Your task to perform on an android device: turn on notifications settings in the gmail app Image 0: 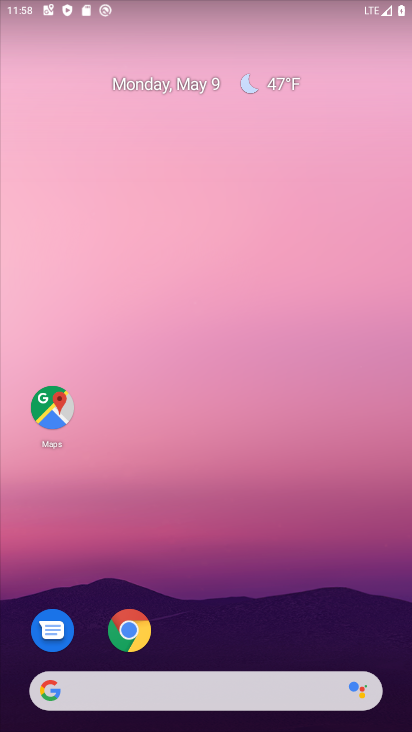
Step 0: press home button
Your task to perform on an android device: turn on notifications settings in the gmail app Image 1: 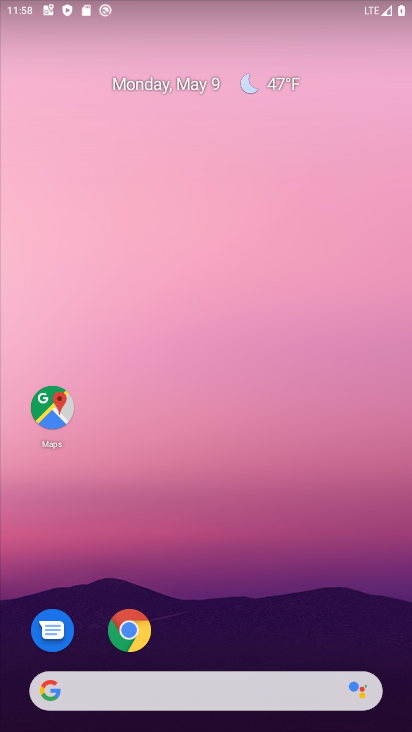
Step 1: drag from (179, 695) to (300, 64)
Your task to perform on an android device: turn on notifications settings in the gmail app Image 2: 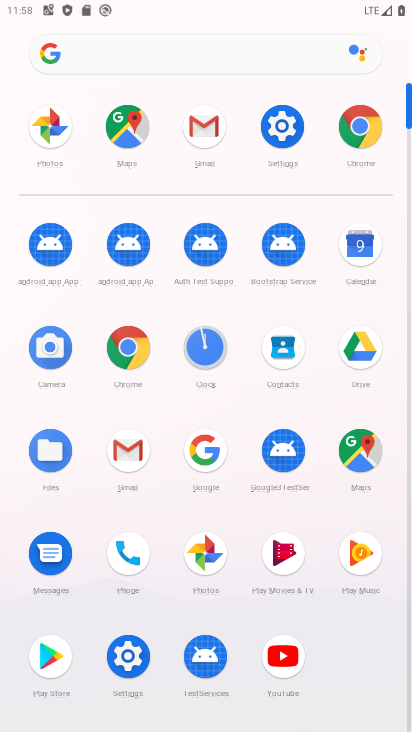
Step 2: click (201, 138)
Your task to perform on an android device: turn on notifications settings in the gmail app Image 3: 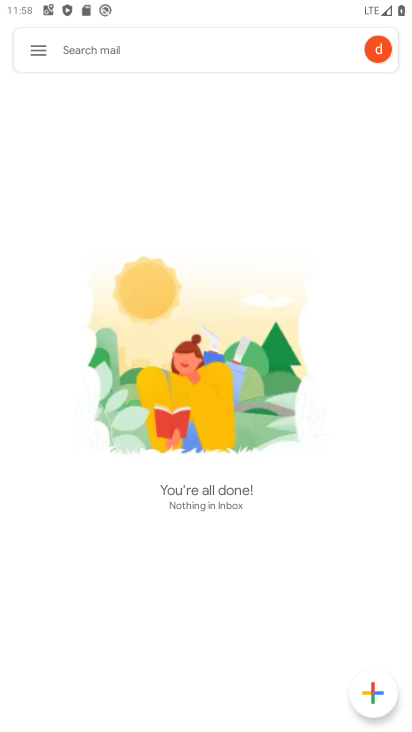
Step 3: click (34, 50)
Your task to perform on an android device: turn on notifications settings in the gmail app Image 4: 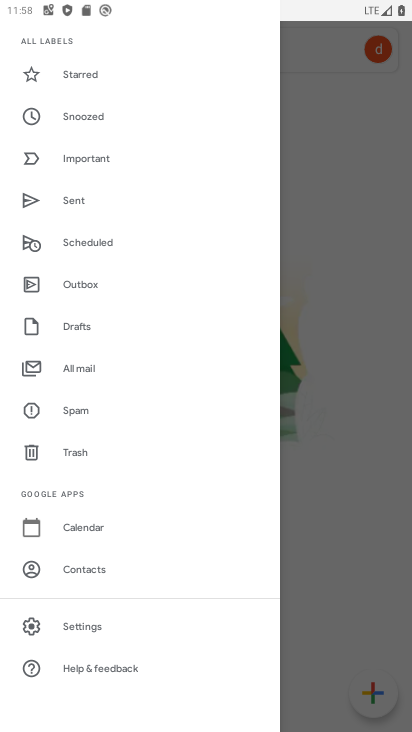
Step 4: click (77, 629)
Your task to perform on an android device: turn on notifications settings in the gmail app Image 5: 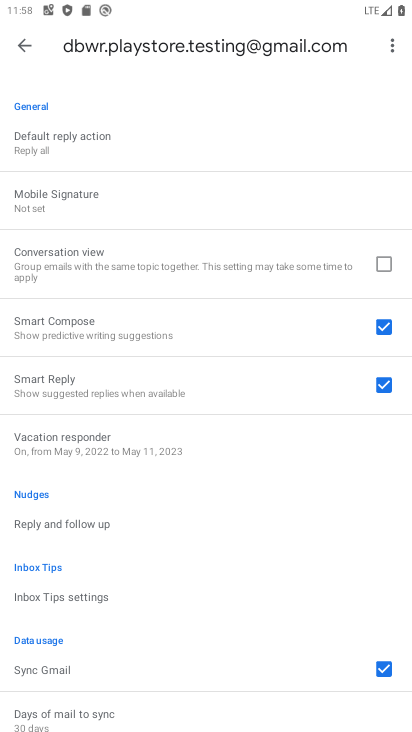
Step 5: drag from (218, 138) to (180, 507)
Your task to perform on an android device: turn on notifications settings in the gmail app Image 6: 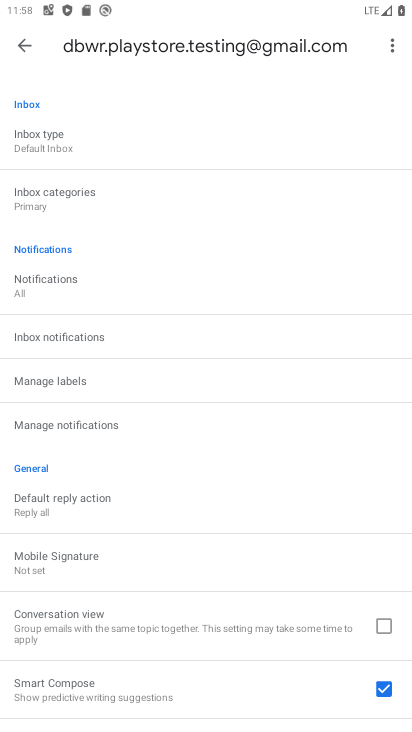
Step 6: click (58, 289)
Your task to perform on an android device: turn on notifications settings in the gmail app Image 7: 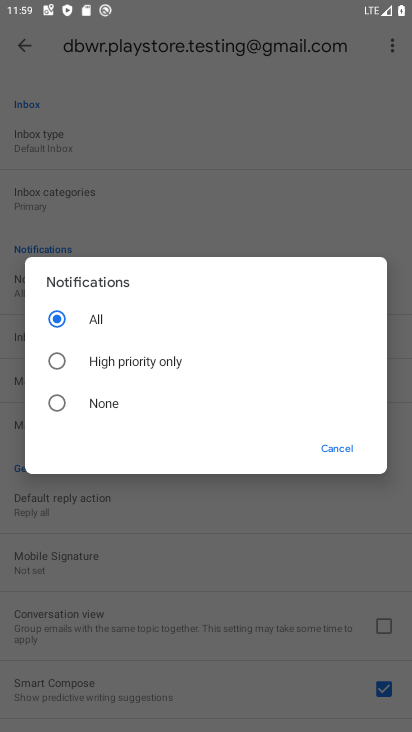
Step 7: task complete